Your task to perform on an android device: Open Yahoo.com Image 0: 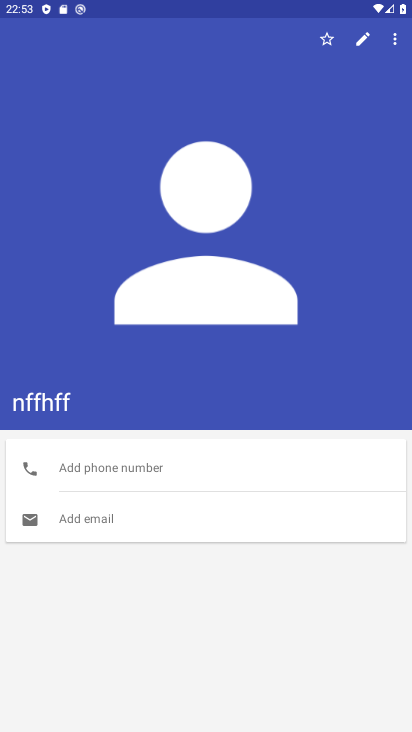
Step 0: press home button
Your task to perform on an android device: Open Yahoo.com Image 1: 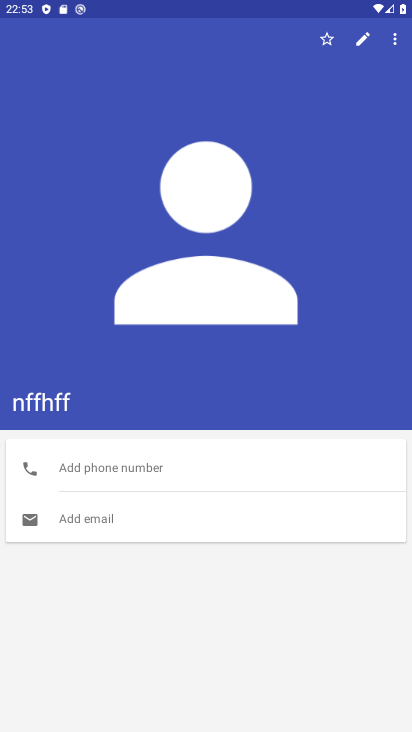
Step 1: press home button
Your task to perform on an android device: Open Yahoo.com Image 2: 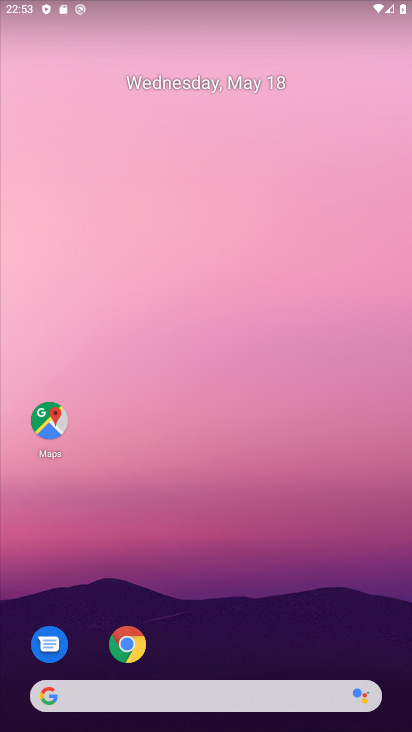
Step 2: click (134, 636)
Your task to perform on an android device: Open Yahoo.com Image 3: 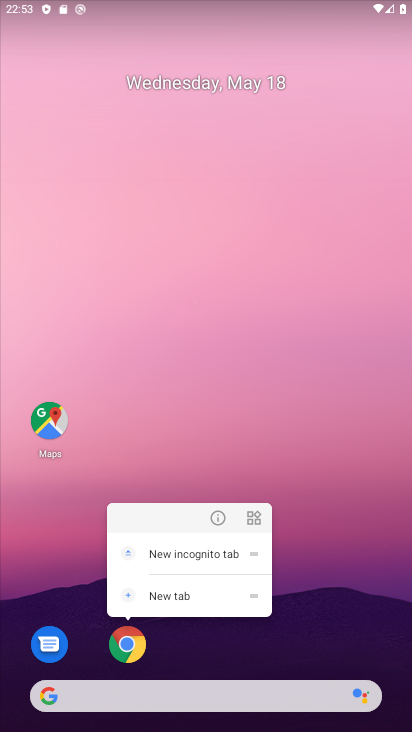
Step 3: click (129, 644)
Your task to perform on an android device: Open Yahoo.com Image 4: 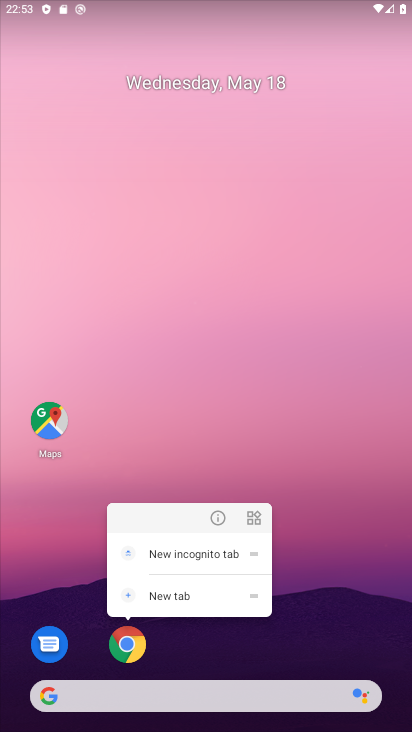
Step 4: click (123, 645)
Your task to perform on an android device: Open Yahoo.com Image 5: 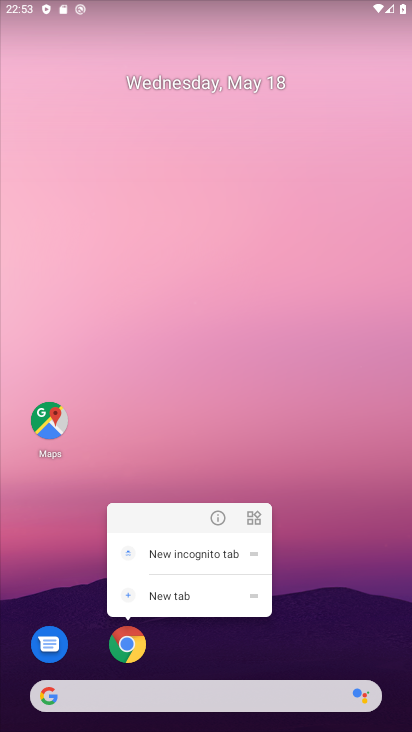
Step 5: click (126, 648)
Your task to perform on an android device: Open Yahoo.com Image 6: 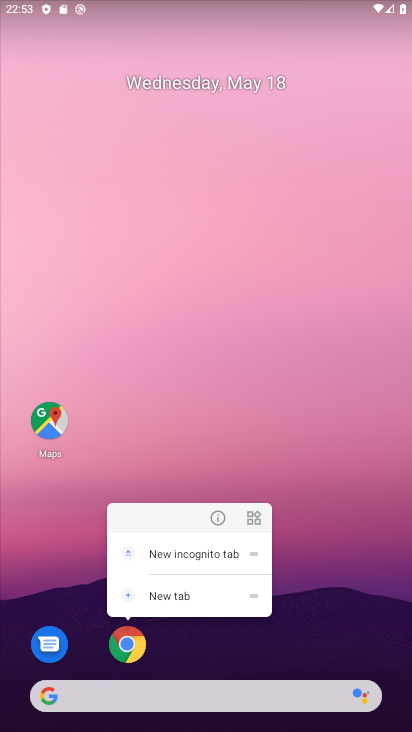
Step 6: drag from (352, 307) to (369, 77)
Your task to perform on an android device: Open Yahoo.com Image 7: 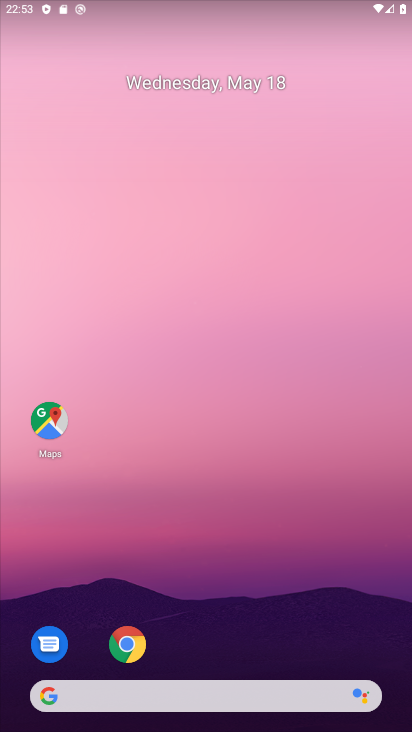
Step 7: drag from (353, 567) to (330, 86)
Your task to perform on an android device: Open Yahoo.com Image 8: 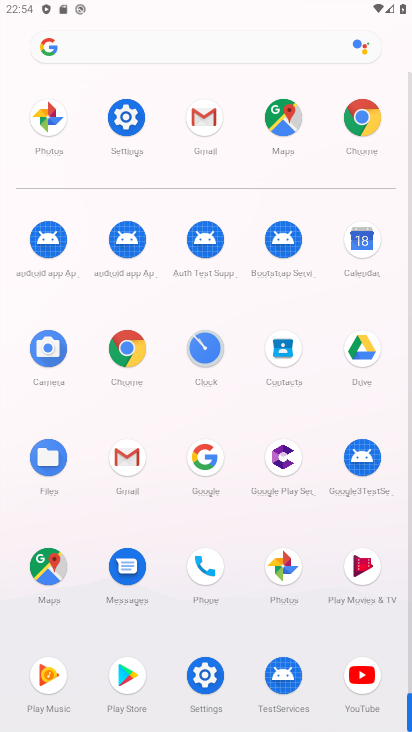
Step 8: click (369, 113)
Your task to perform on an android device: Open Yahoo.com Image 9: 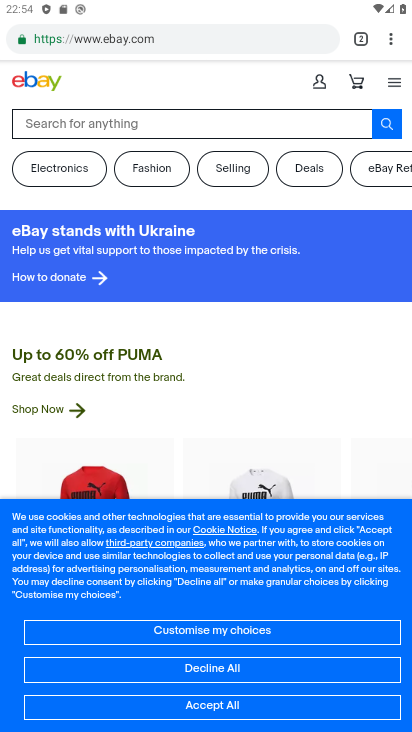
Step 9: click (218, 38)
Your task to perform on an android device: Open Yahoo.com Image 10: 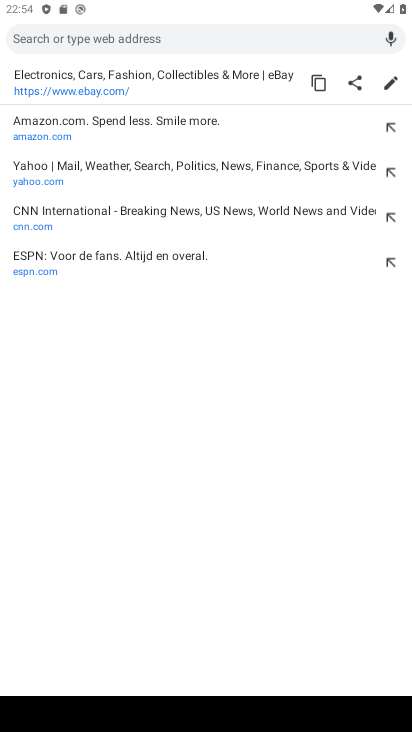
Step 10: click (41, 178)
Your task to perform on an android device: Open Yahoo.com Image 11: 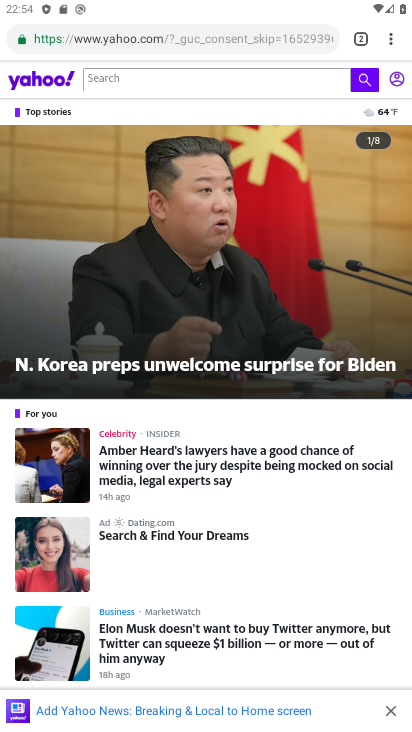
Step 11: task complete